Your task to perform on an android device: open app "Pinterest" (install if not already installed), go to login, and select forgot password Image 0: 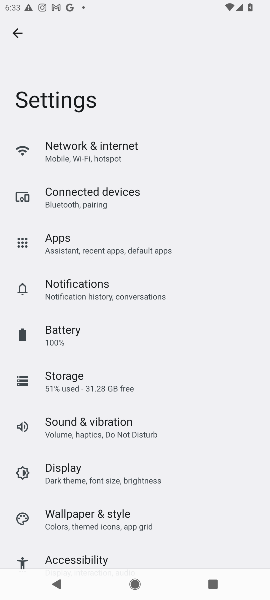
Step 0: press home button
Your task to perform on an android device: open app "Pinterest" (install if not already installed), go to login, and select forgot password Image 1: 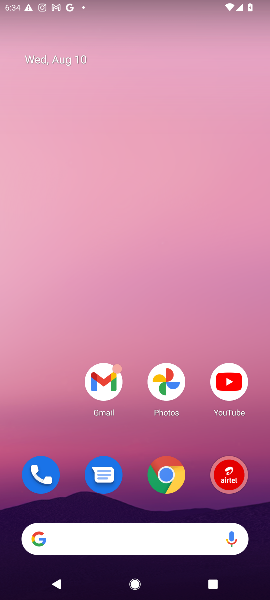
Step 1: drag from (162, 524) to (179, 235)
Your task to perform on an android device: open app "Pinterest" (install if not already installed), go to login, and select forgot password Image 2: 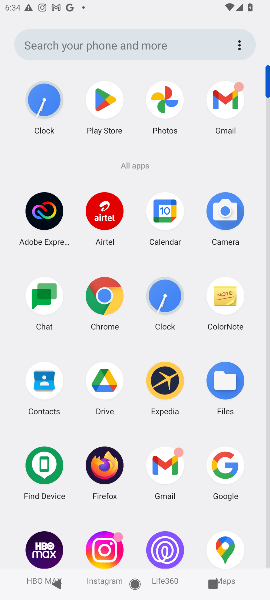
Step 2: click (110, 92)
Your task to perform on an android device: open app "Pinterest" (install if not already installed), go to login, and select forgot password Image 3: 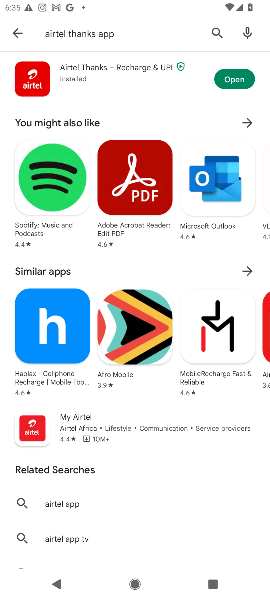
Step 3: click (211, 30)
Your task to perform on an android device: open app "Pinterest" (install if not already installed), go to login, and select forgot password Image 4: 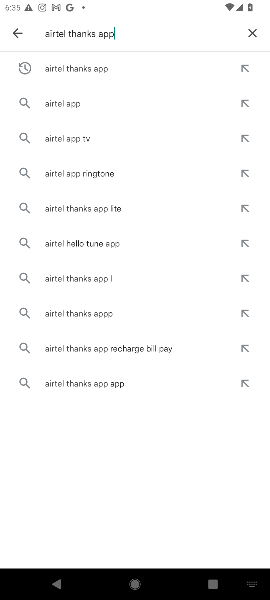
Step 4: click (255, 34)
Your task to perform on an android device: open app "Pinterest" (install if not already installed), go to login, and select forgot password Image 5: 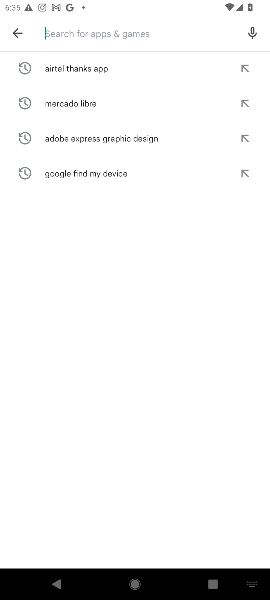
Step 5: type "Pinterest"
Your task to perform on an android device: open app "Pinterest" (install if not already installed), go to login, and select forgot password Image 6: 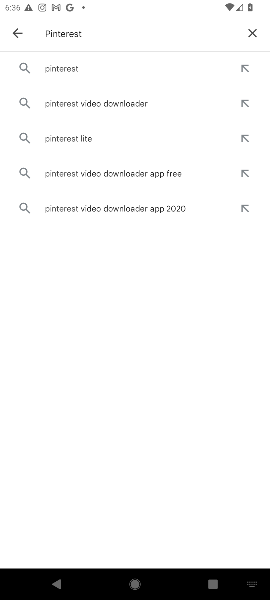
Step 6: click (95, 73)
Your task to perform on an android device: open app "Pinterest" (install if not already installed), go to login, and select forgot password Image 7: 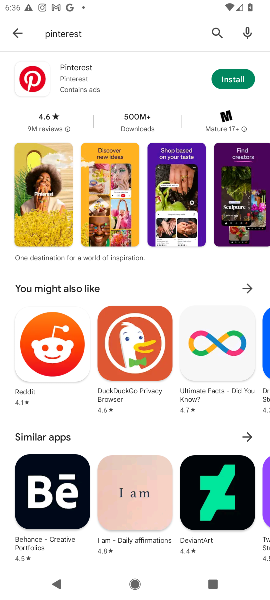
Step 7: click (235, 78)
Your task to perform on an android device: open app "Pinterest" (install if not already installed), go to login, and select forgot password Image 8: 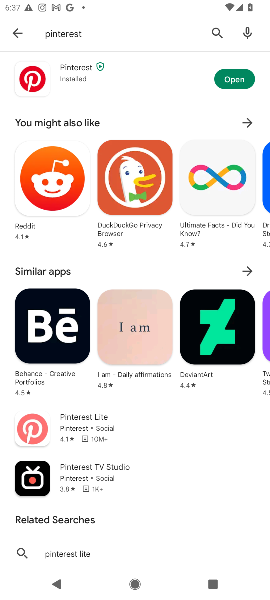
Step 8: click (221, 77)
Your task to perform on an android device: open app "Pinterest" (install if not already installed), go to login, and select forgot password Image 9: 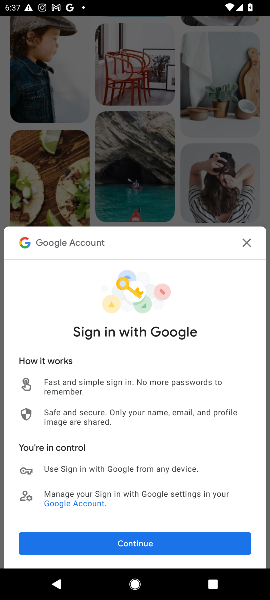
Step 9: click (132, 549)
Your task to perform on an android device: open app "Pinterest" (install if not already installed), go to login, and select forgot password Image 10: 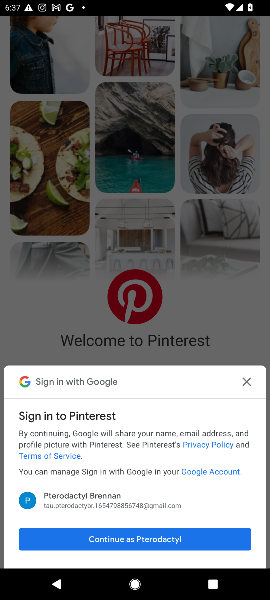
Step 10: click (159, 541)
Your task to perform on an android device: open app "Pinterest" (install if not already installed), go to login, and select forgot password Image 11: 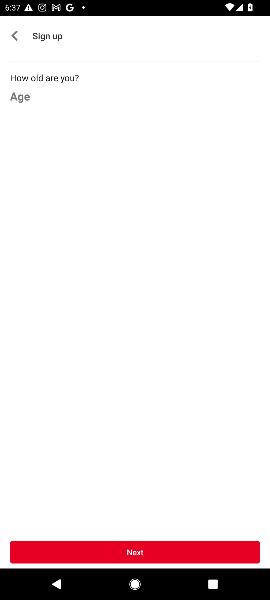
Step 11: task complete